Your task to perform on an android device: Go to display settings Image 0: 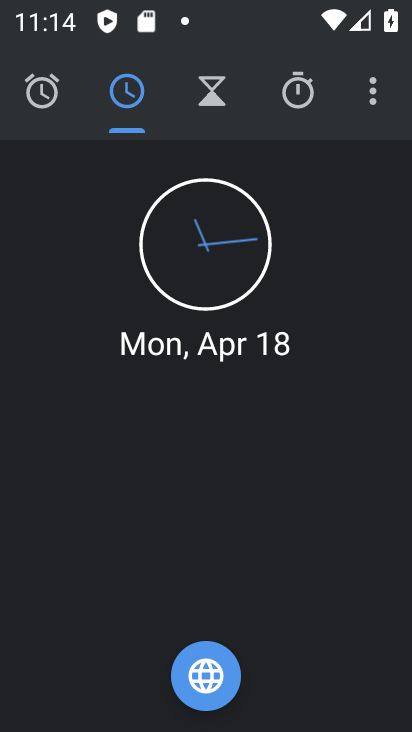
Step 0: press home button
Your task to perform on an android device: Go to display settings Image 1: 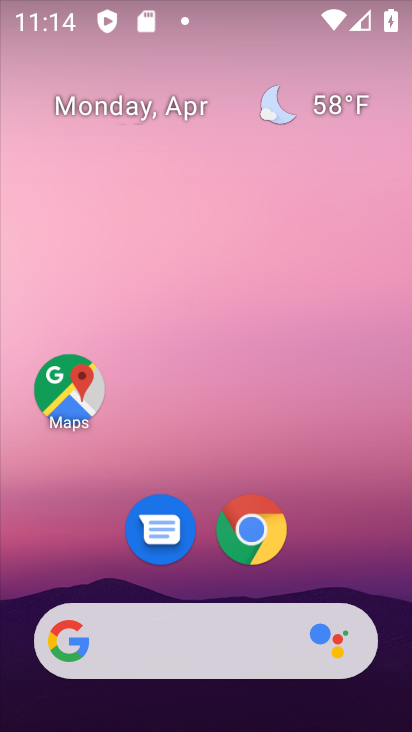
Step 1: drag from (314, 525) to (178, 31)
Your task to perform on an android device: Go to display settings Image 2: 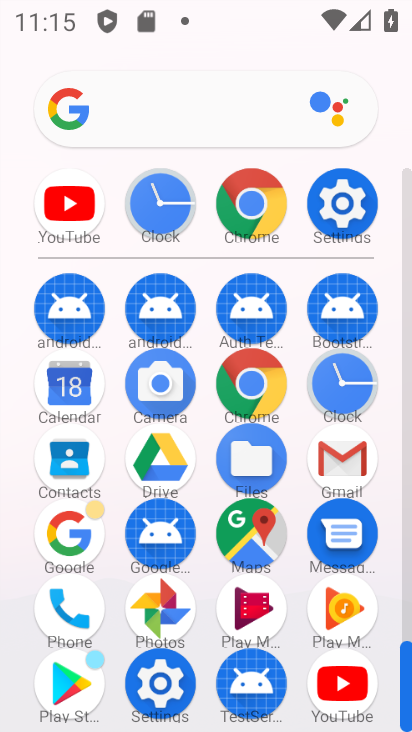
Step 2: click (363, 202)
Your task to perform on an android device: Go to display settings Image 3: 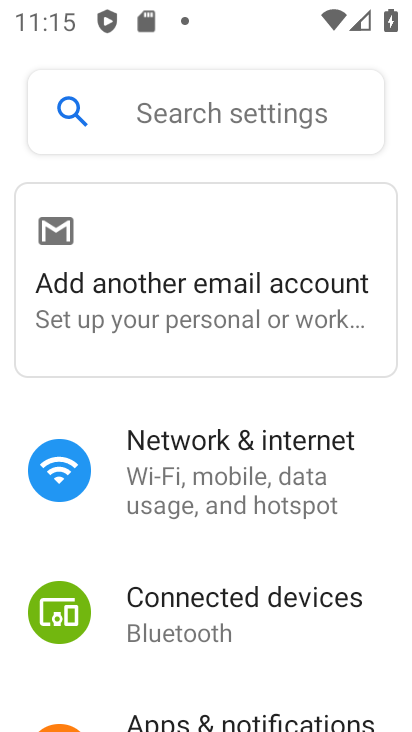
Step 3: drag from (150, 647) to (231, 227)
Your task to perform on an android device: Go to display settings Image 4: 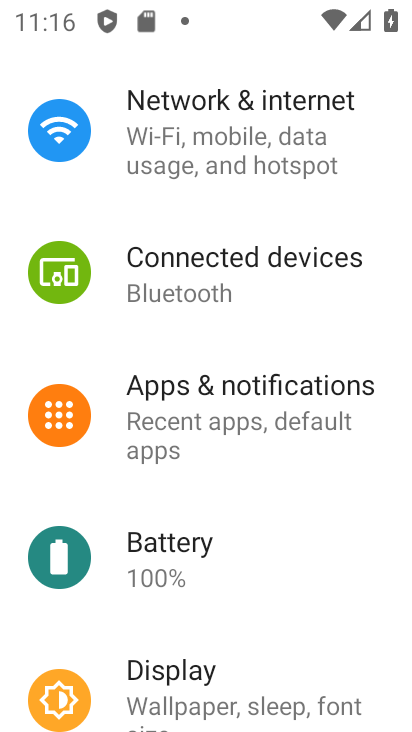
Step 4: click (183, 687)
Your task to perform on an android device: Go to display settings Image 5: 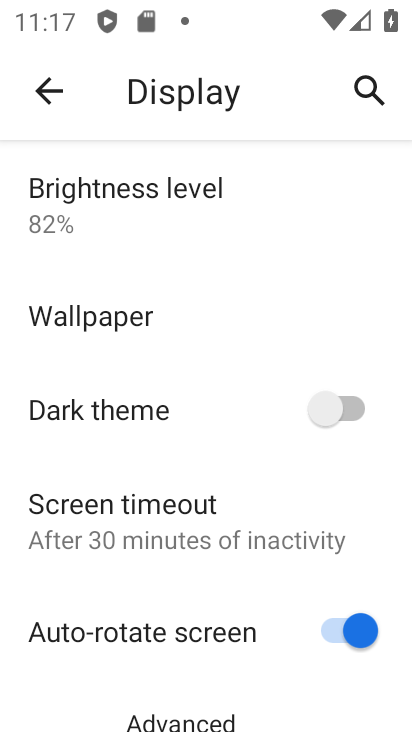
Step 5: task complete